Your task to perform on an android device: Open Chrome and go to settings Image 0: 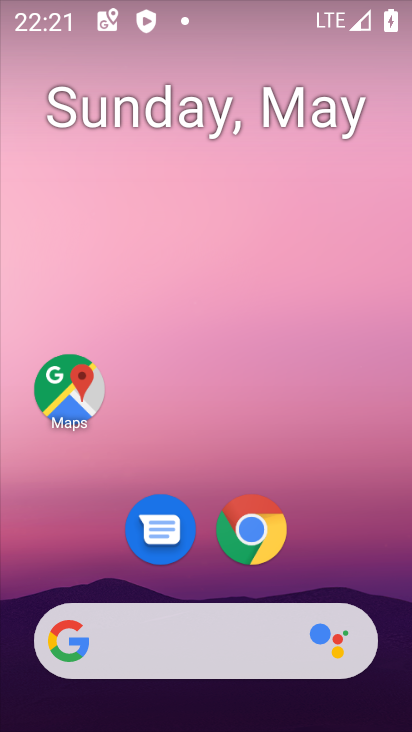
Step 0: click (285, 524)
Your task to perform on an android device: Open Chrome and go to settings Image 1: 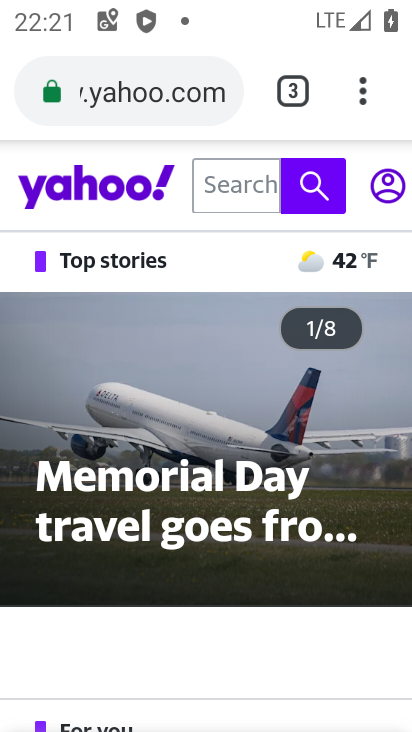
Step 1: click (355, 98)
Your task to perform on an android device: Open Chrome and go to settings Image 2: 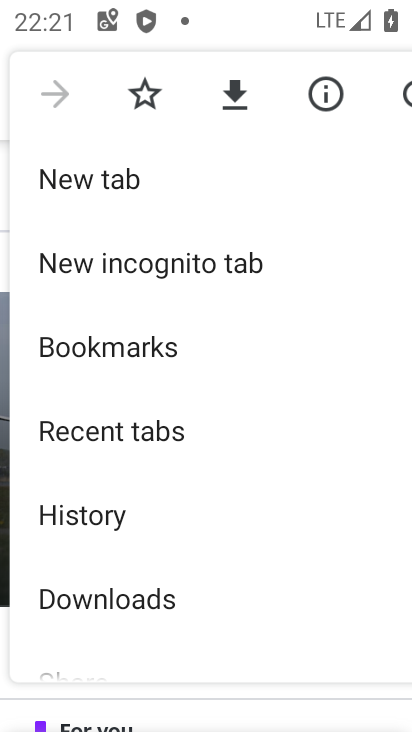
Step 2: drag from (189, 584) to (193, 52)
Your task to perform on an android device: Open Chrome and go to settings Image 3: 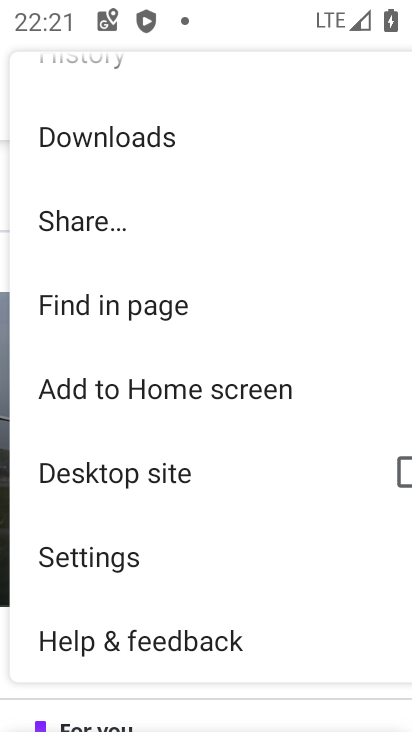
Step 3: click (242, 564)
Your task to perform on an android device: Open Chrome and go to settings Image 4: 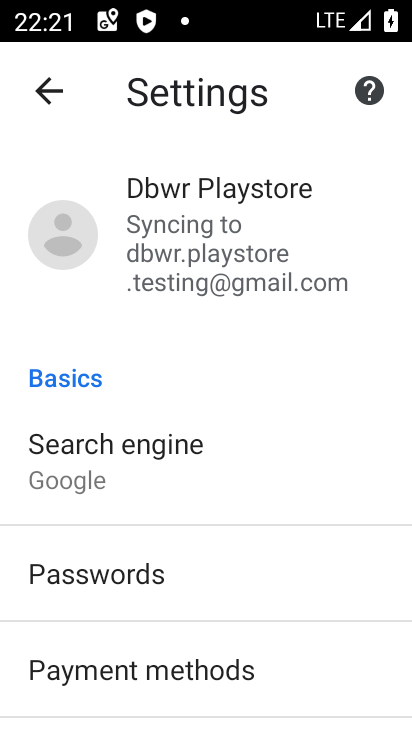
Step 4: task complete